Your task to perform on an android device: turn on airplane mode Image 0: 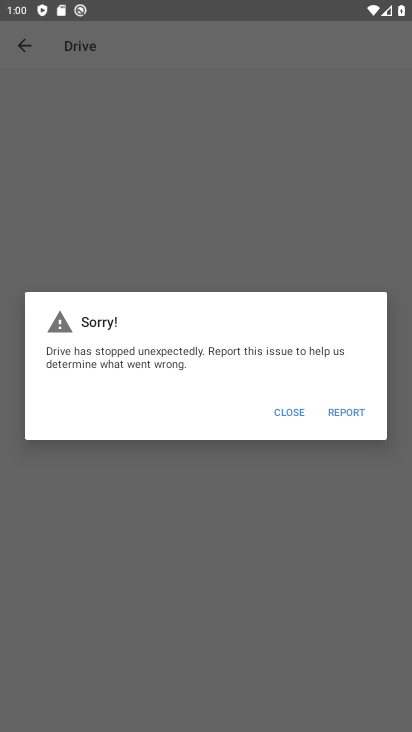
Step 0: press home button
Your task to perform on an android device: turn on airplane mode Image 1: 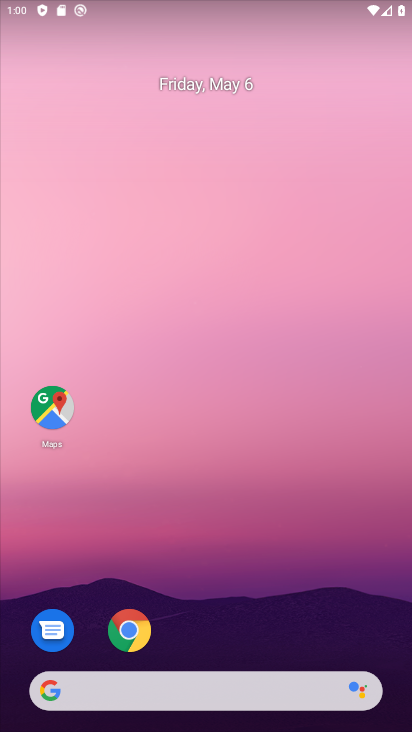
Step 1: drag from (252, 562) to (95, 644)
Your task to perform on an android device: turn on airplane mode Image 2: 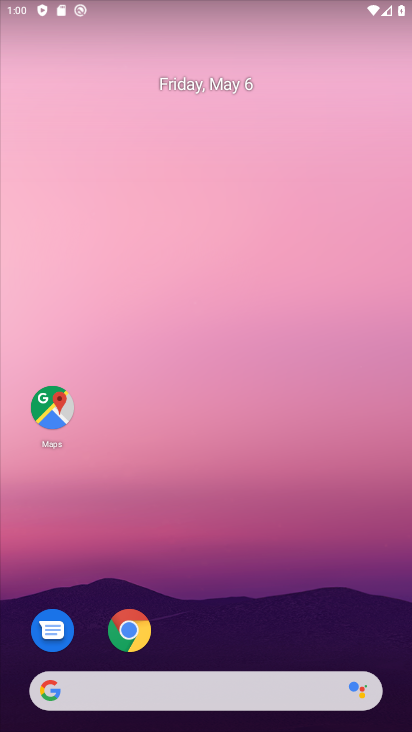
Step 2: drag from (169, 37) to (151, 573)
Your task to perform on an android device: turn on airplane mode Image 3: 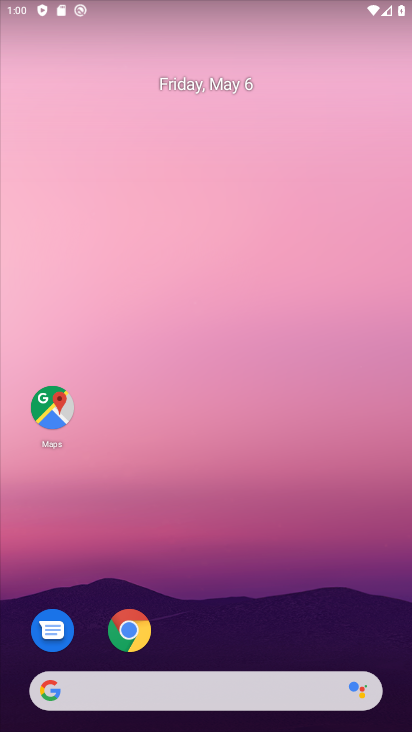
Step 3: drag from (222, 0) to (190, 547)
Your task to perform on an android device: turn on airplane mode Image 4: 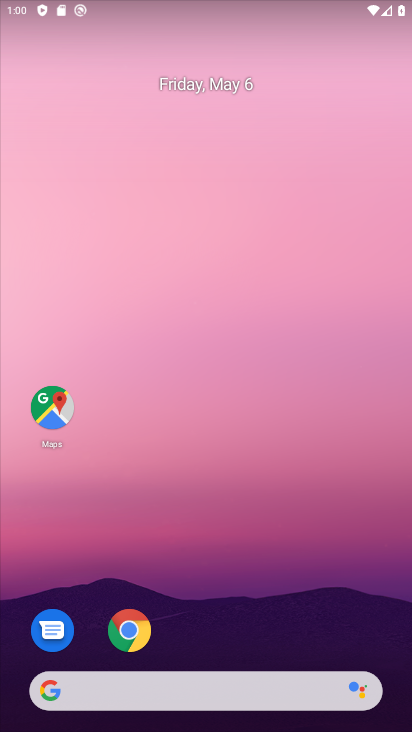
Step 4: drag from (304, 7) to (254, 501)
Your task to perform on an android device: turn on airplane mode Image 5: 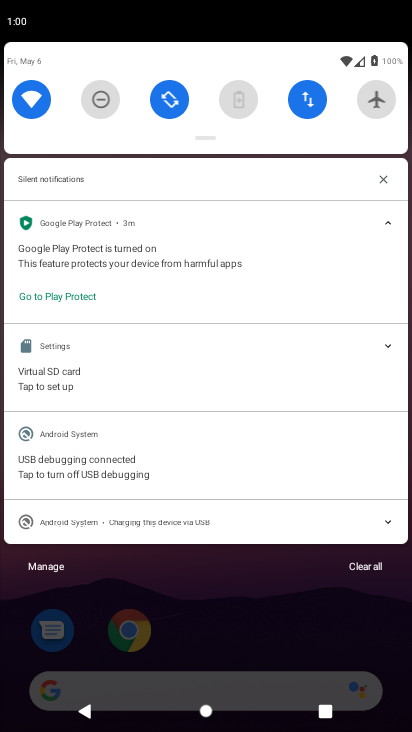
Step 5: drag from (214, 125) to (243, 659)
Your task to perform on an android device: turn on airplane mode Image 6: 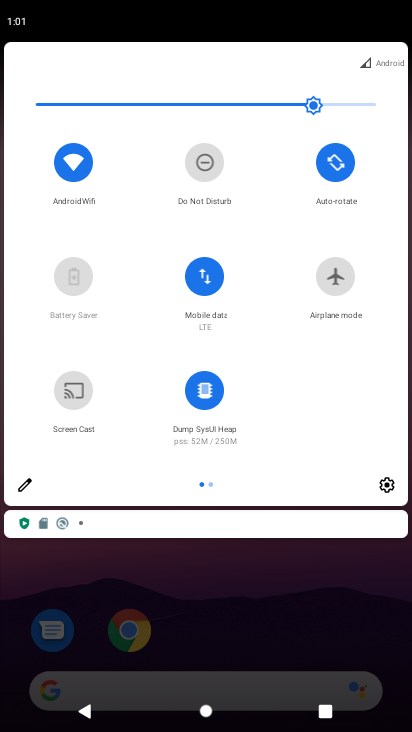
Step 6: click (329, 278)
Your task to perform on an android device: turn on airplane mode Image 7: 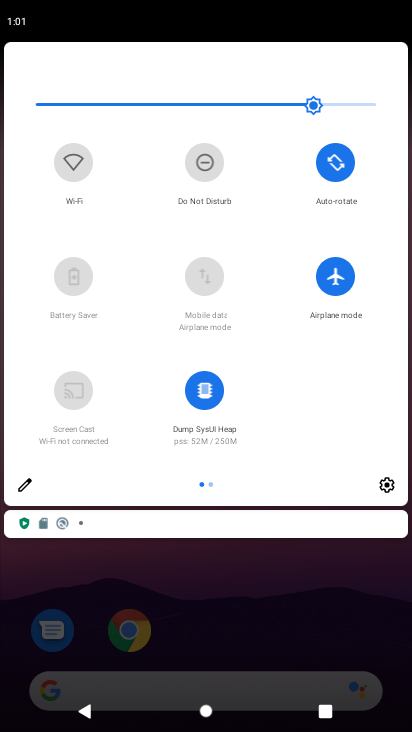
Step 7: task complete